Your task to perform on an android device: see creations saved in the google photos Image 0: 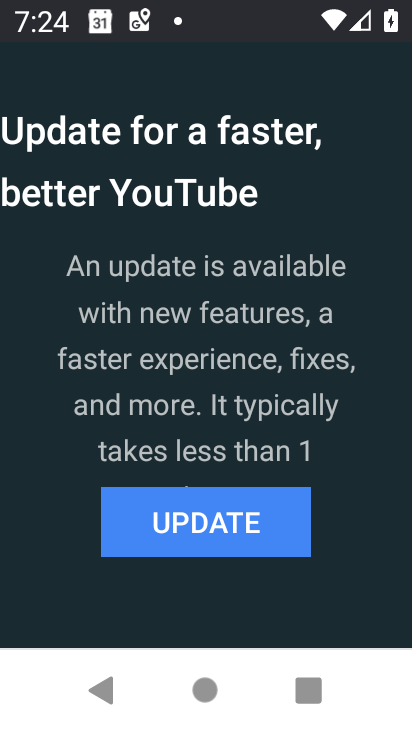
Step 0: press back button
Your task to perform on an android device: see creations saved in the google photos Image 1: 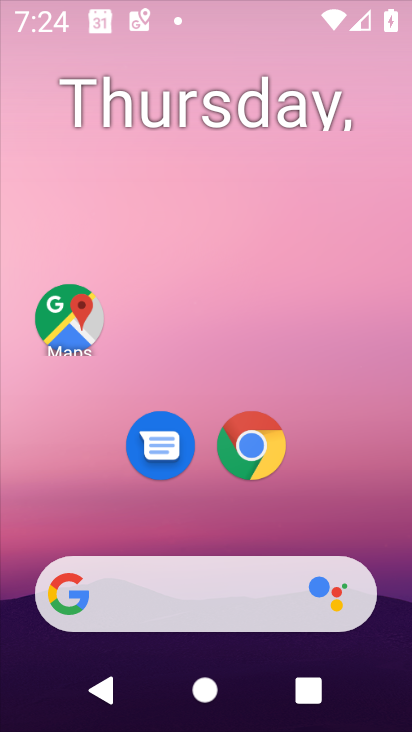
Step 1: drag from (402, 652) to (309, 63)
Your task to perform on an android device: see creations saved in the google photos Image 2: 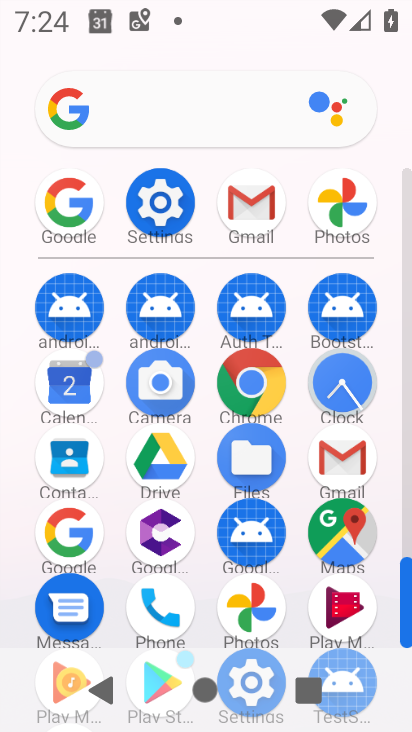
Step 2: click (269, 600)
Your task to perform on an android device: see creations saved in the google photos Image 3: 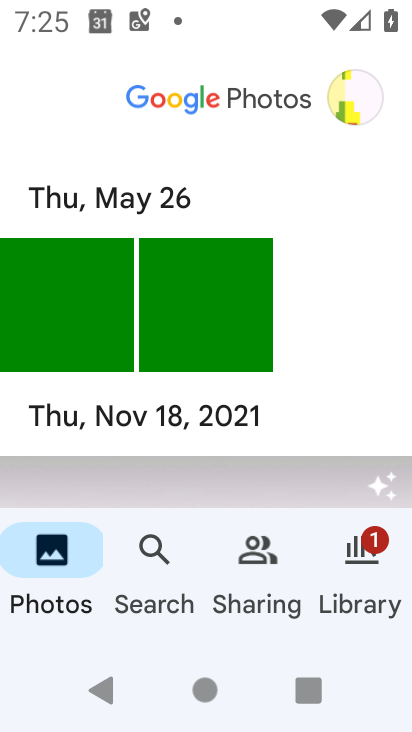
Step 3: click (169, 569)
Your task to perform on an android device: see creations saved in the google photos Image 4: 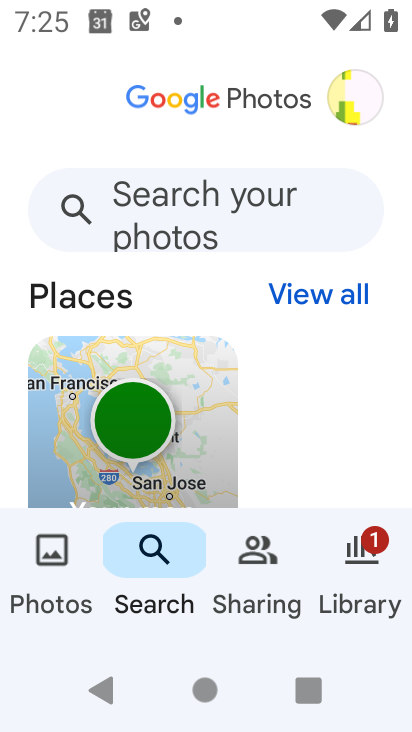
Step 4: click (157, 195)
Your task to perform on an android device: see creations saved in the google photos Image 5: 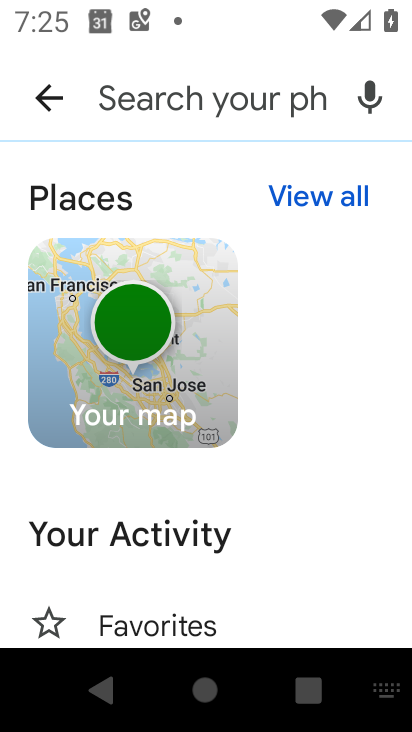
Step 5: drag from (159, 564) to (154, 22)
Your task to perform on an android device: see creations saved in the google photos Image 6: 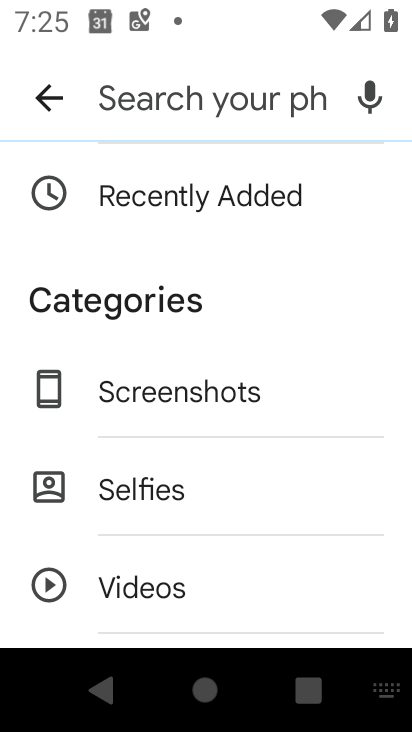
Step 6: drag from (174, 492) to (191, 61)
Your task to perform on an android device: see creations saved in the google photos Image 7: 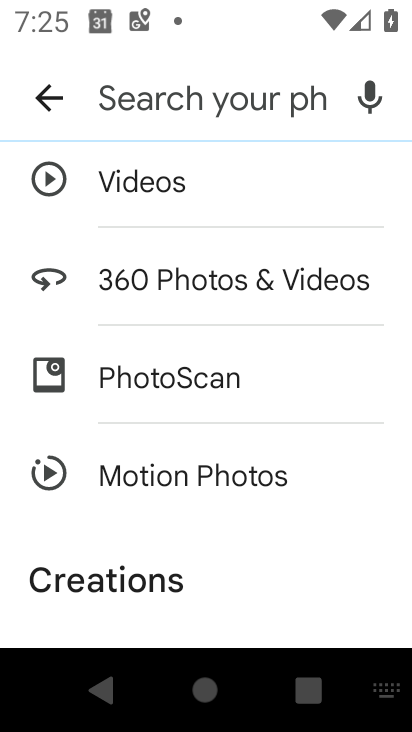
Step 7: drag from (147, 536) to (181, 110)
Your task to perform on an android device: see creations saved in the google photos Image 8: 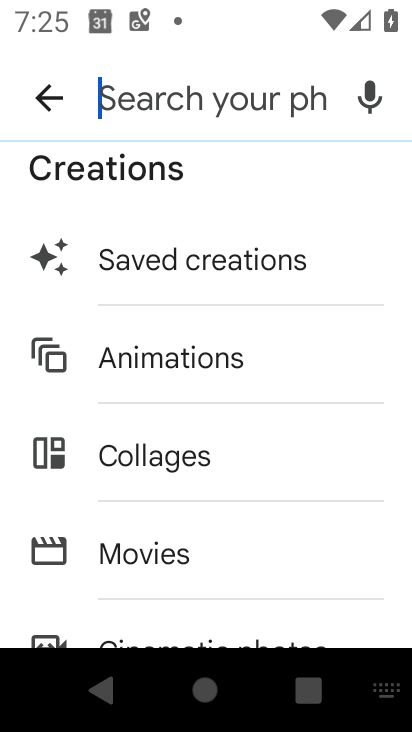
Step 8: click (197, 261)
Your task to perform on an android device: see creations saved in the google photos Image 9: 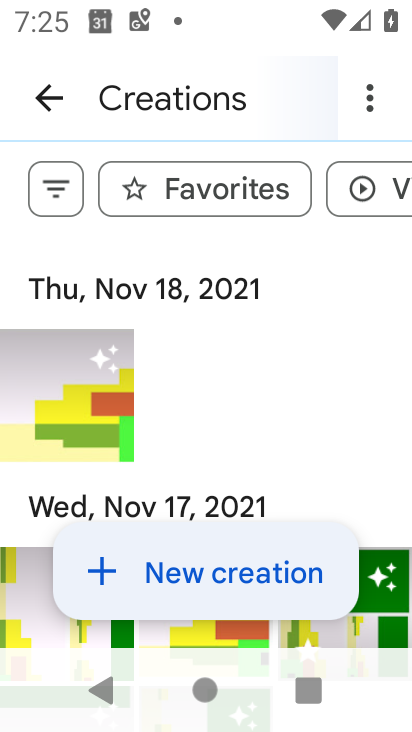
Step 9: task complete